Your task to perform on an android device: change notifications settings Image 0: 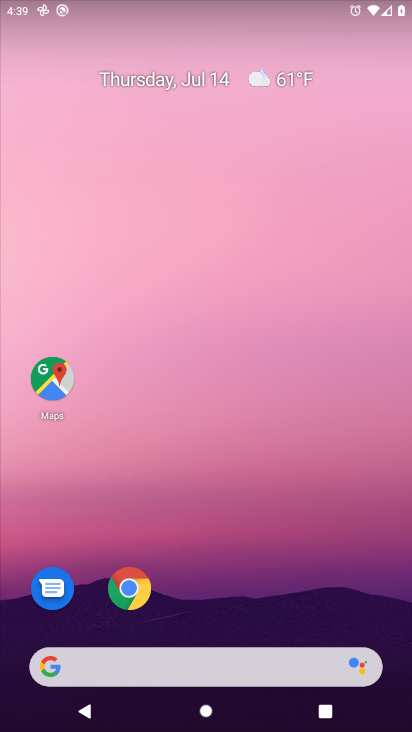
Step 0: press home button
Your task to perform on an android device: change notifications settings Image 1: 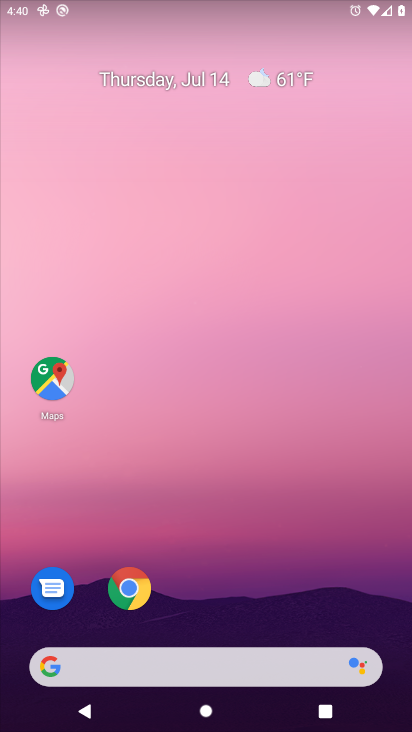
Step 1: drag from (193, 623) to (186, 5)
Your task to perform on an android device: change notifications settings Image 2: 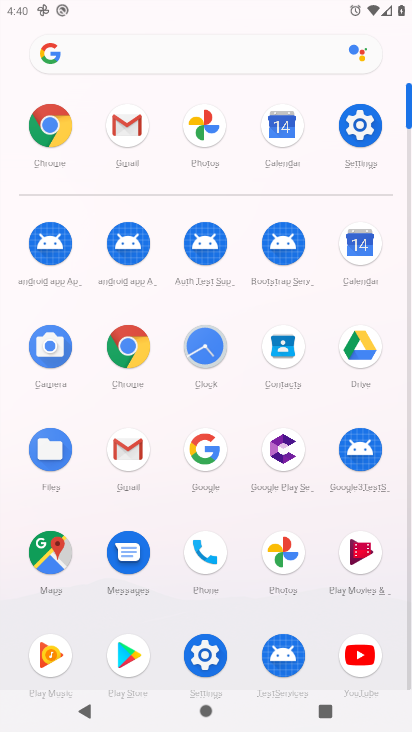
Step 2: click (365, 131)
Your task to perform on an android device: change notifications settings Image 3: 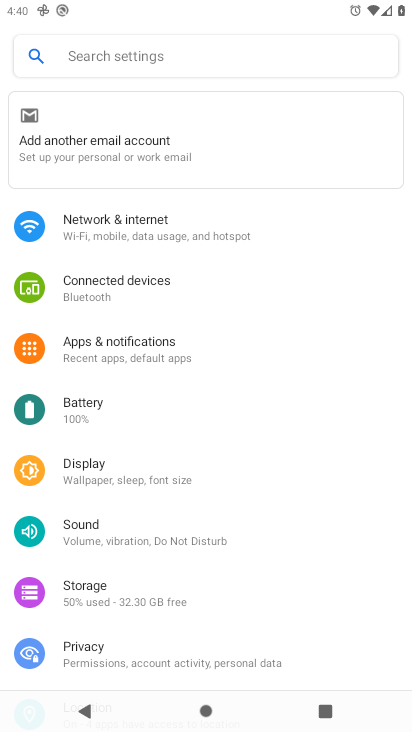
Step 3: click (123, 345)
Your task to perform on an android device: change notifications settings Image 4: 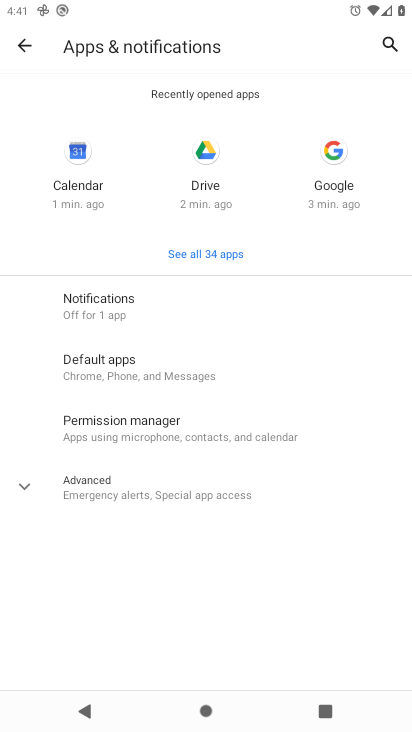
Step 4: click (104, 307)
Your task to perform on an android device: change notifications settings Image 5: 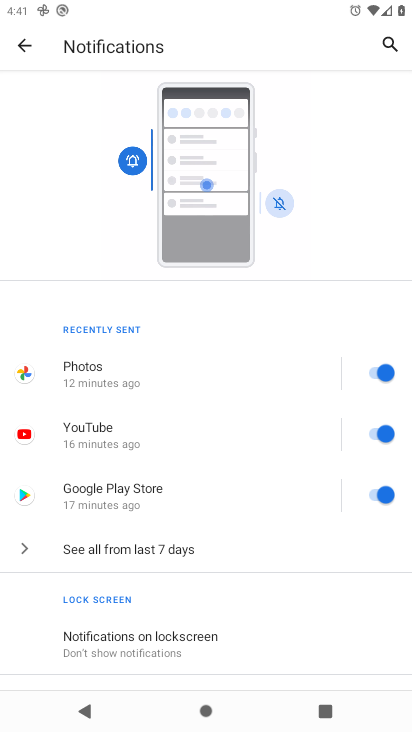
Step 5: drag from (265, 591) to (234, 97)
Your task to perform on an android device: change notifications settings Image 6: 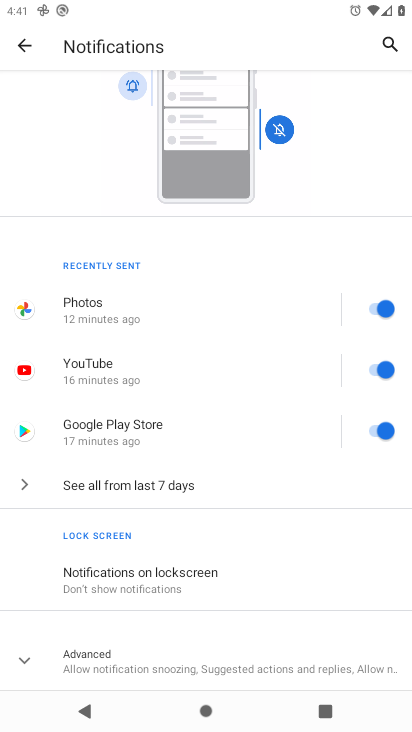
Step 6: click (92, 656)
Your task to perform on an android device: change notifications settings Image 7: 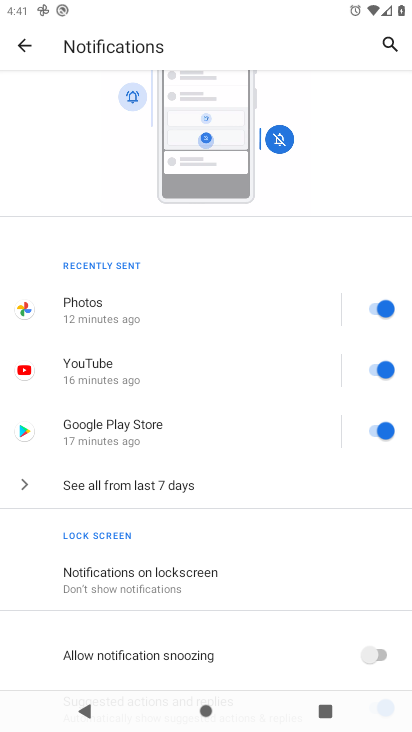
Step 7: drag from (343, 563) to (352, 131)
Your task to perform on an android device: change notifications settings Image 8: 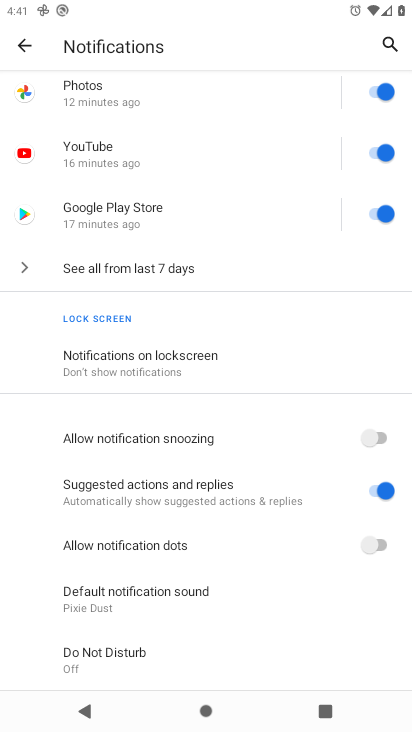
Step 8: click (105, 351)
Your task to perform on an android device: change notifications settings Image 9: 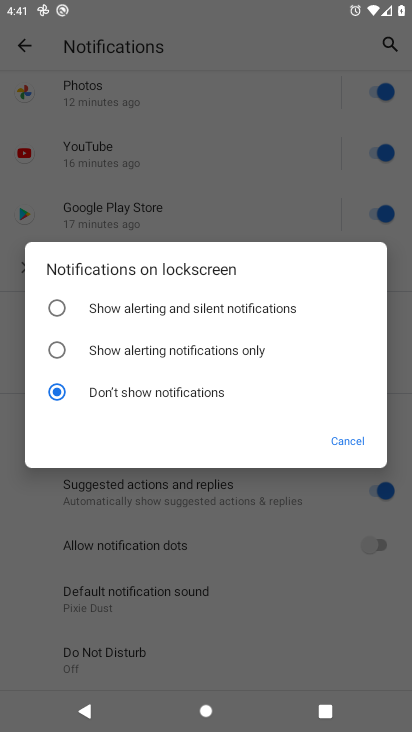
Step 9: click (60, 308)
Your task to perform on an android device: change notifications settings Image 10: 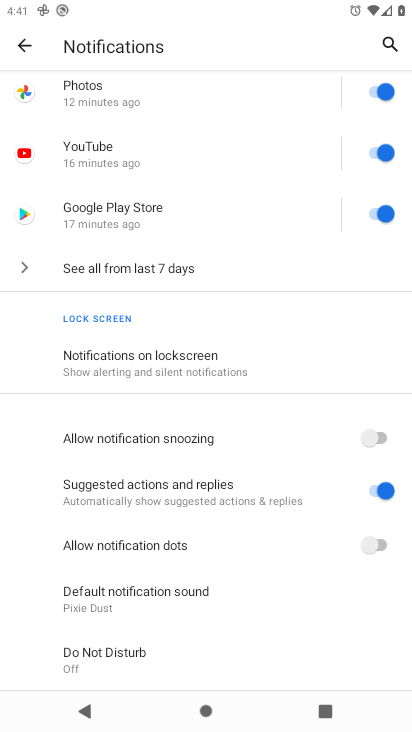
Step 10: task complete